Your task to perform on an android device: Go to Google maps Image 0: 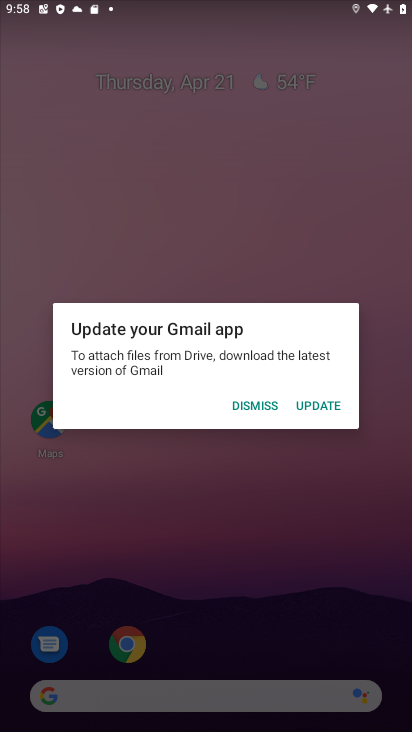
Step 0: press home button
Your task to perform on an android device: Go to Google maps Image 1: 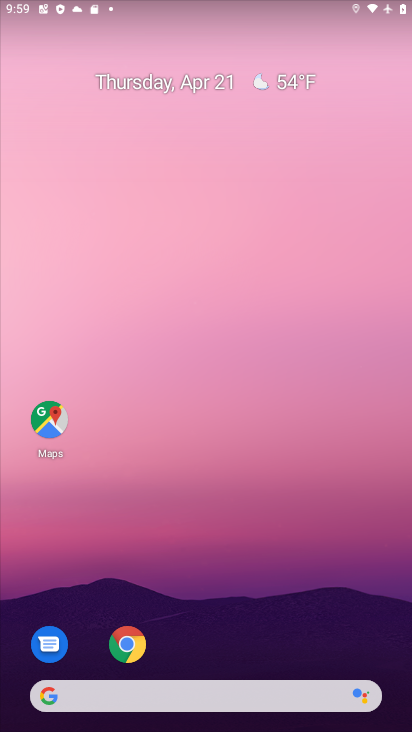
Step 1: click (33, 416)
Your task to perform on an android device: Go to Google maps Image 2: 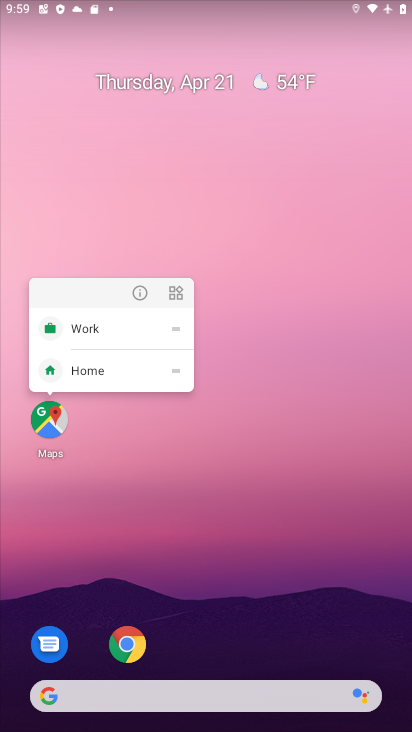
Step 2: click (47, 416)
Your task to perform on an android device: Go to Google maps Image 3: 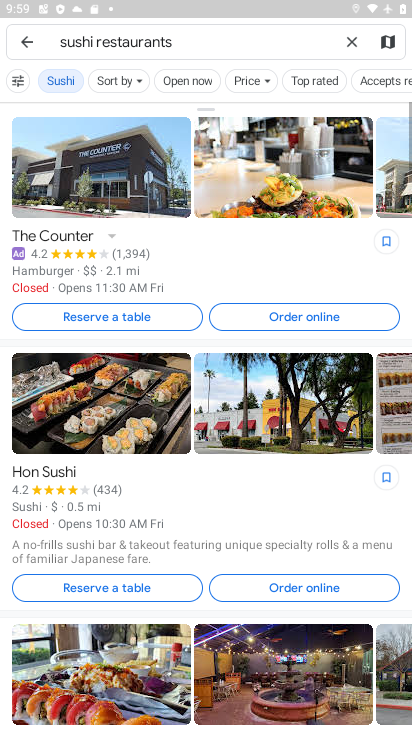
Step 3: click (28, 43)
Your task to perform on an android device: Go to Google maps Image 4: 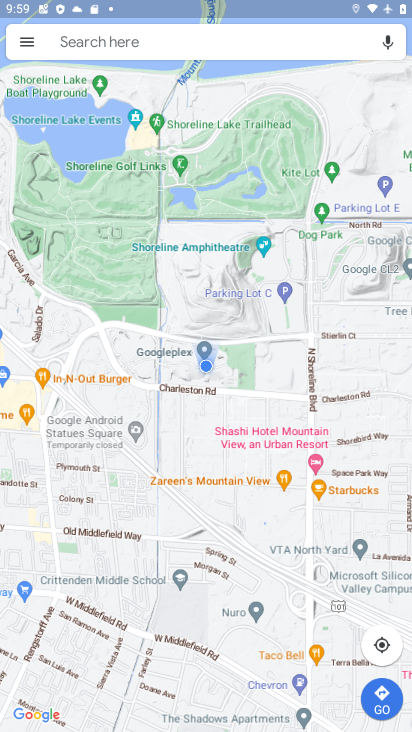
Step 4: task complete